Your task to perform on an android device: Is it going to rain today? Image 0: 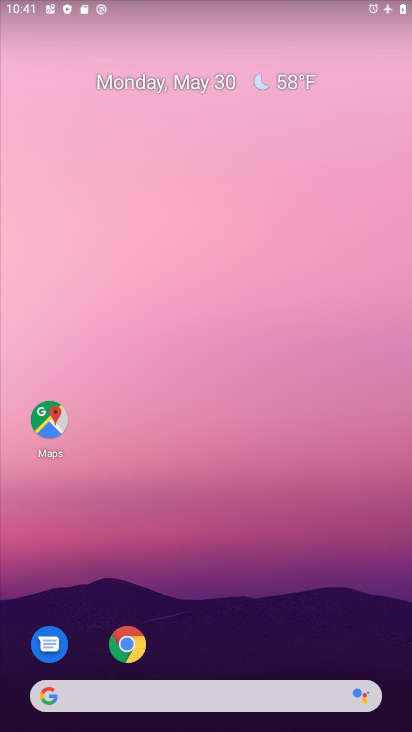
Step 0: click (291, 75)
Your task to perform on an android device: Is it going to rain today? Image 1: 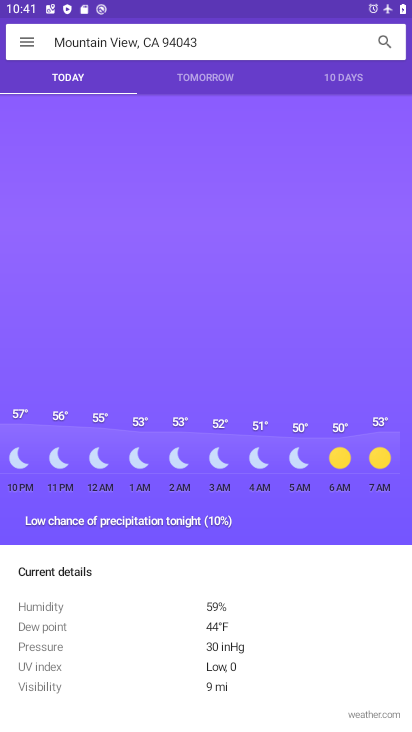
Step 1: task complete